Your task to perform on an android device: turn pop-ups off in chrome Image 0: 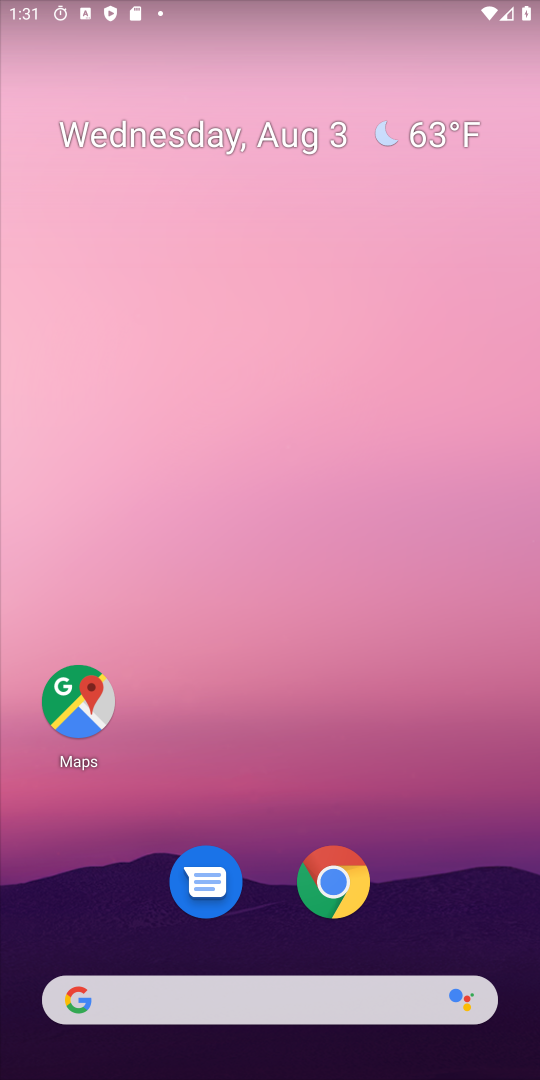
Step 0: click (452, 639)
Your task to perform on an android device: turn pop-ups off in chrome Image 1: 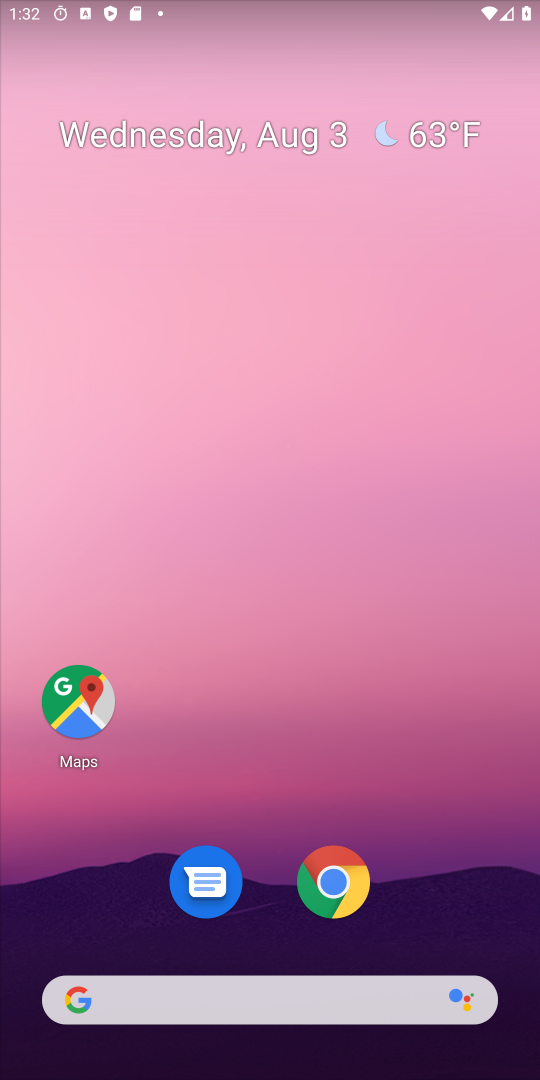
Step 1: drag from (282, 806) to (261, 32)
Your task to perform on an android device: turn pop-ups off in chrome Image 2: 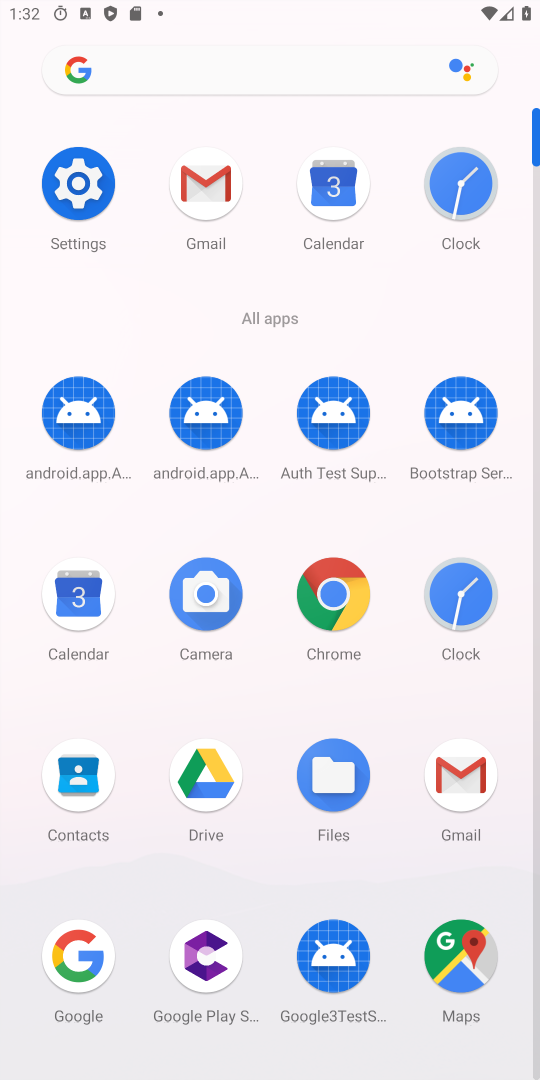
Step 2: click (345, 606)
Your task to perform on an android device: turn pop-ups off in chrome Image 3: 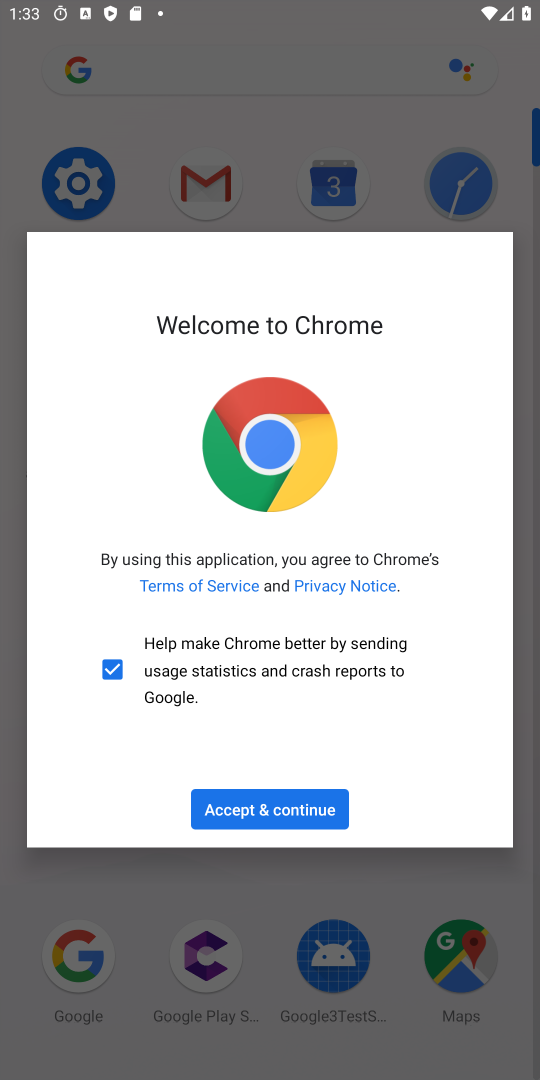
Step 3: click (271, 784)
Your task to perform on an android device: turn pop-ups off in chrome Image 4: 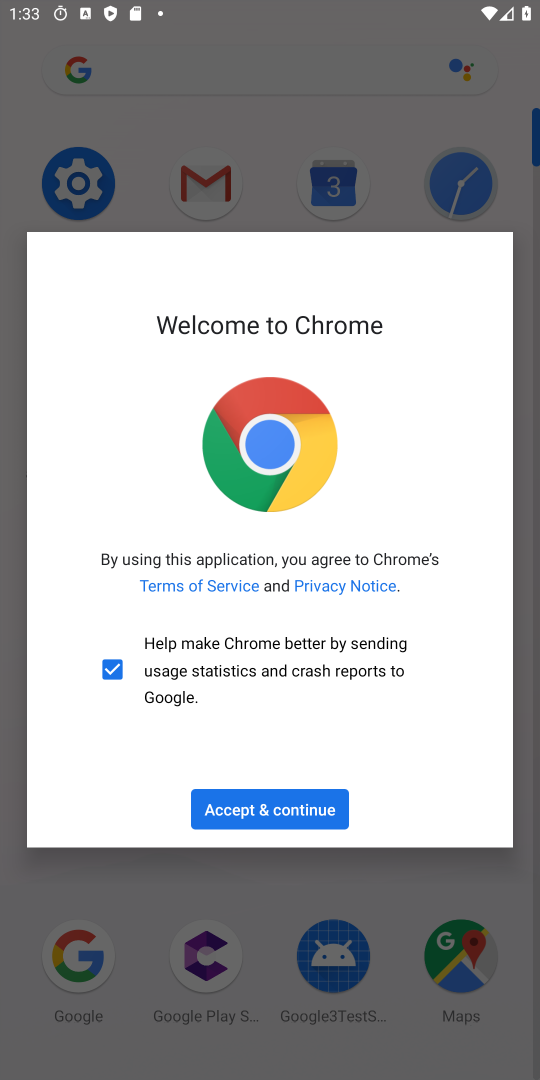
Step 4: click (264, 802)
Your task to perform on an android device: turn pop-ups off in chrome Image 5: 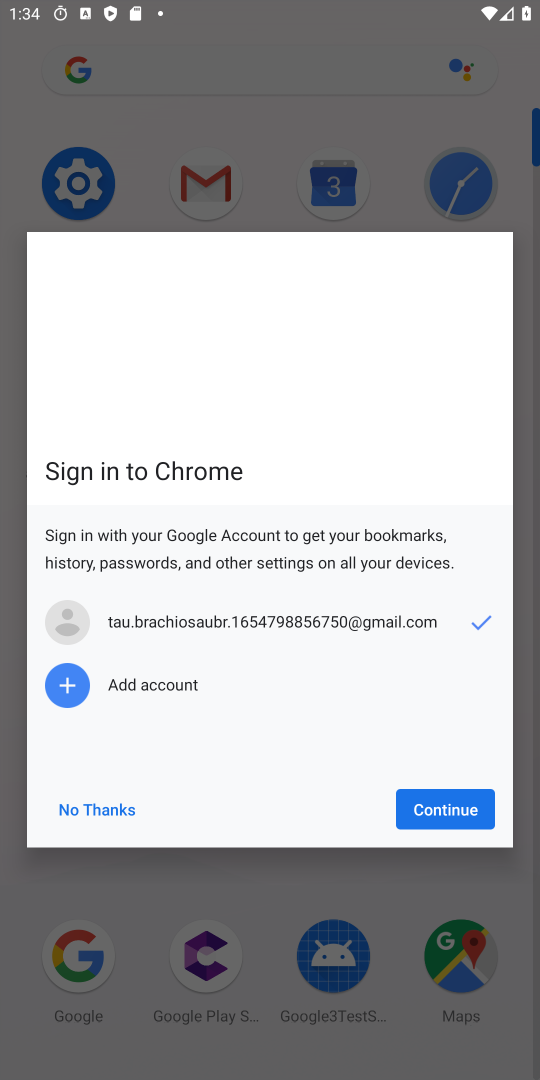
Step 5: click (474, 822)
Your task to perform on an android device: turn pop-ups off in chrome Image 6: 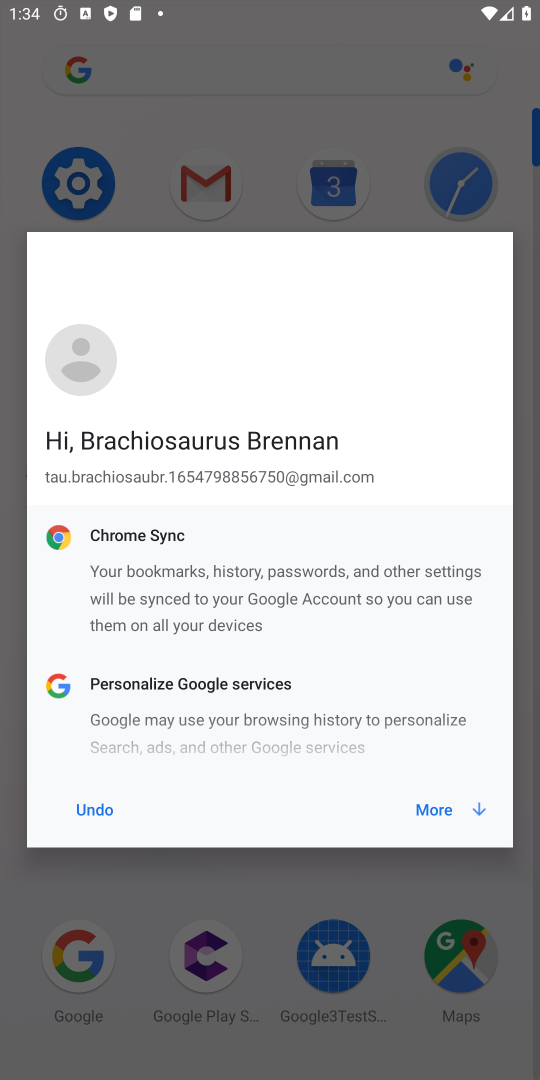
Step 6: click (445, 818)
Your task to perform on an android device: turn pop-ups off in chrome Image 7: 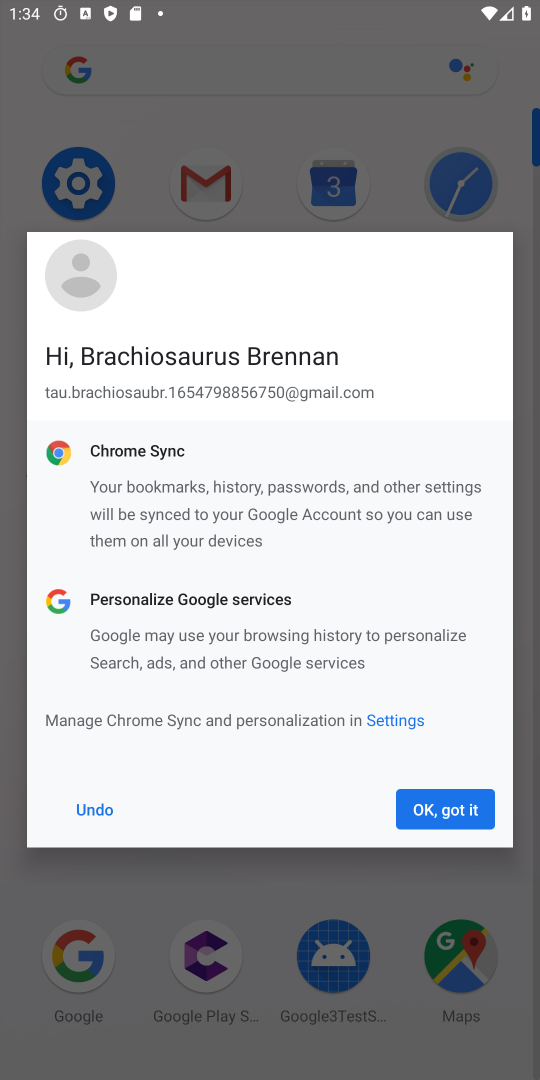
Step 7: click (449, 812)
Your task to perform on an android device: turn pop-ups off in chrome Image 8: 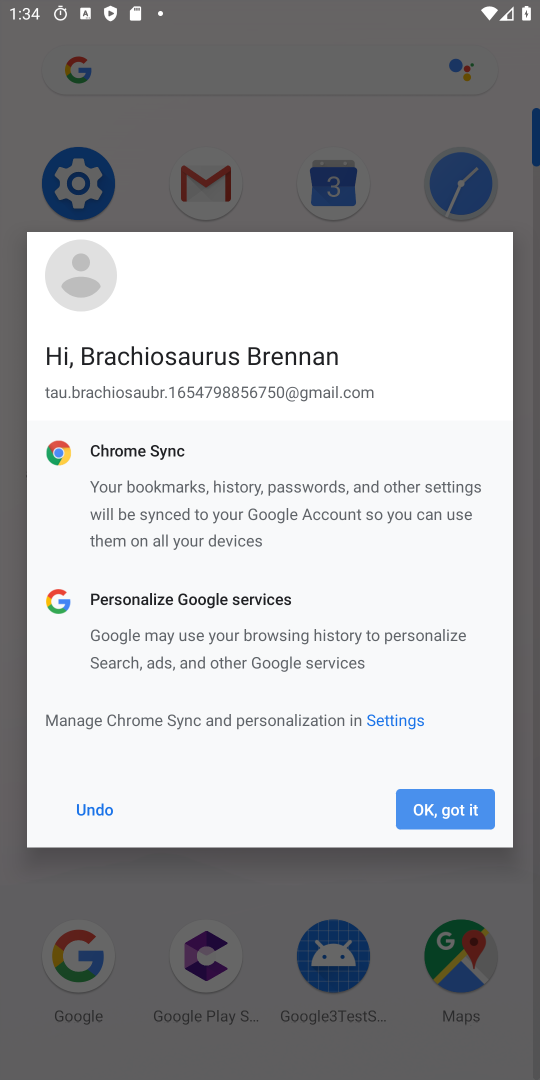
Step 8: click (457, 807)
Your task to perform on an android device: turn pop-ups off in chrome Image 9: 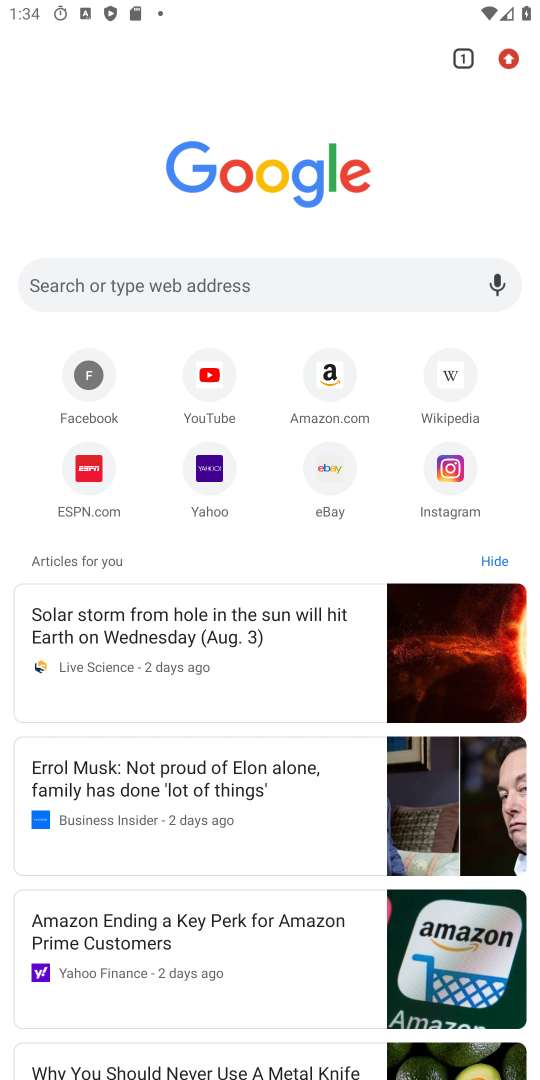
Step 9: click (509, 72)
Your task to perform on an android device: turn pop-ups off in chrome Image 10: 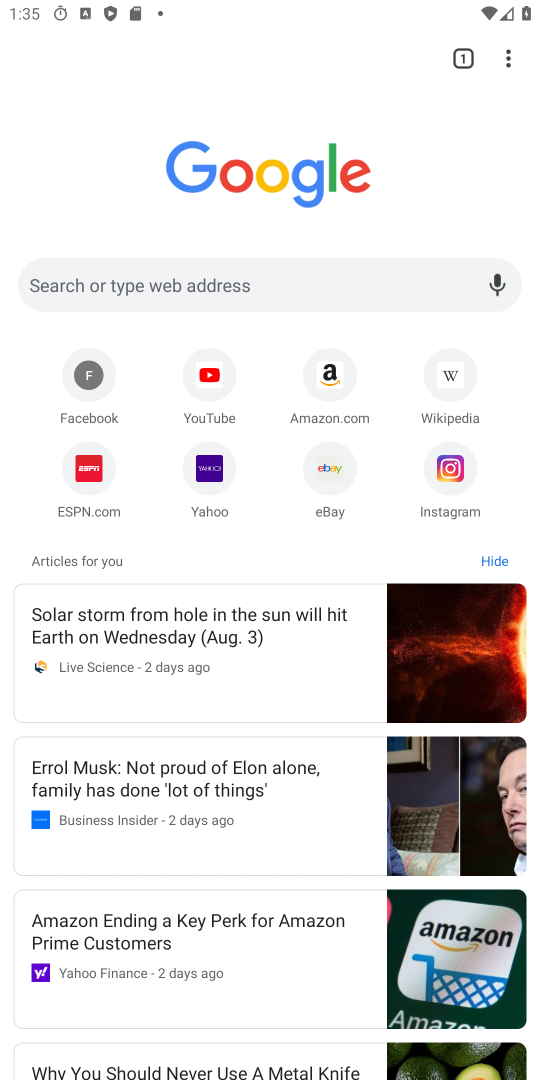
Step 10: click (518, 53)
Your task to perform on an android device: turn pop-ups off in chrome Image 11: 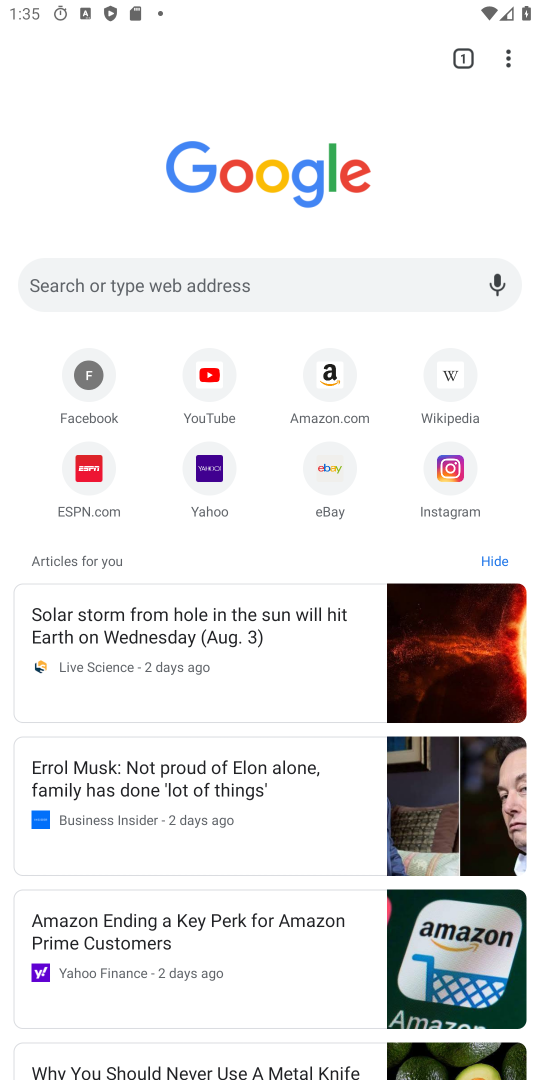
Step 11: click (509, 67)
Your task to perform on an android device: turn pop-ups off in chrome Image 12: 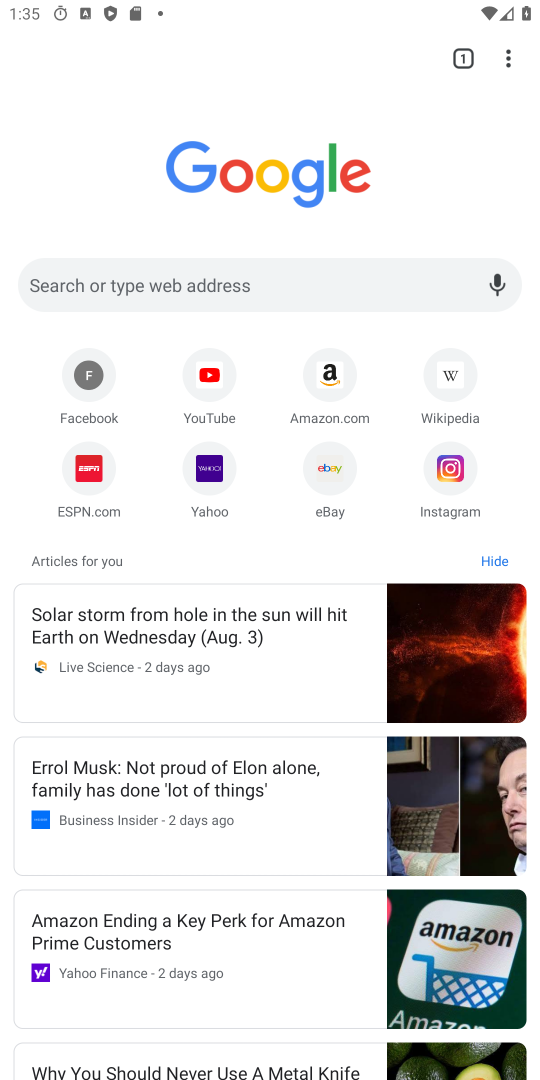
Step 12: click (494, 60)
Your task to perform on an android device: turn pop-ups off in chrome Image 13: 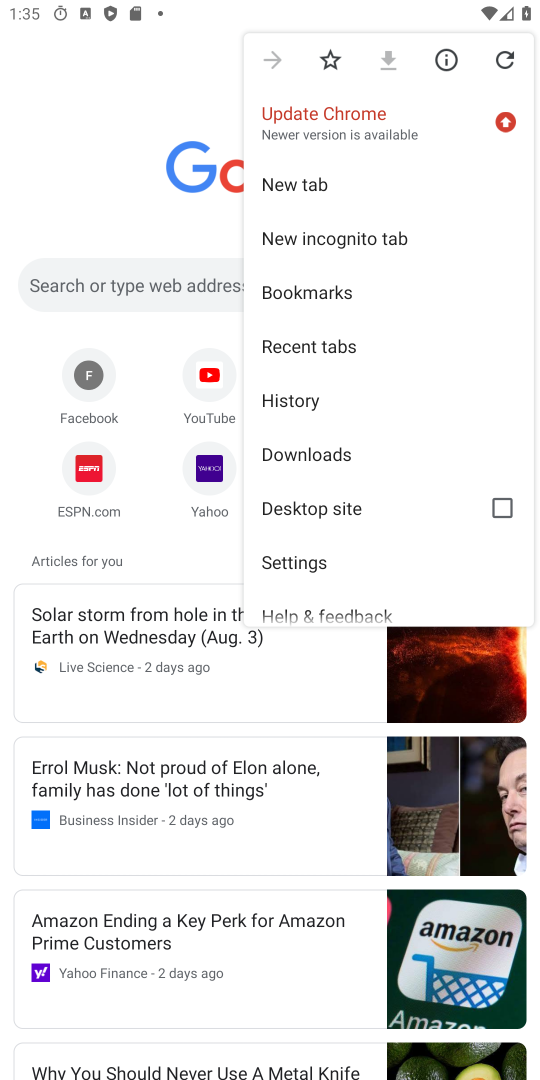
Step 13: click (332, 558)
Your task to perform on an android device: turn pop-ups off in chrome Image 14: 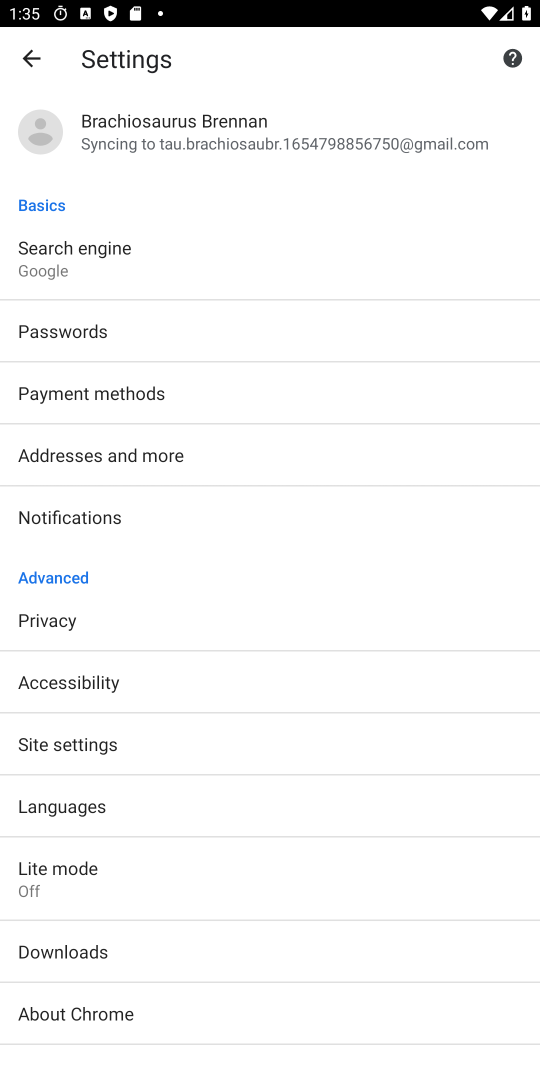
Step 14: click (189, 736)
Your task to perform on an android device: turn pop-ups off in chrome Image 15: 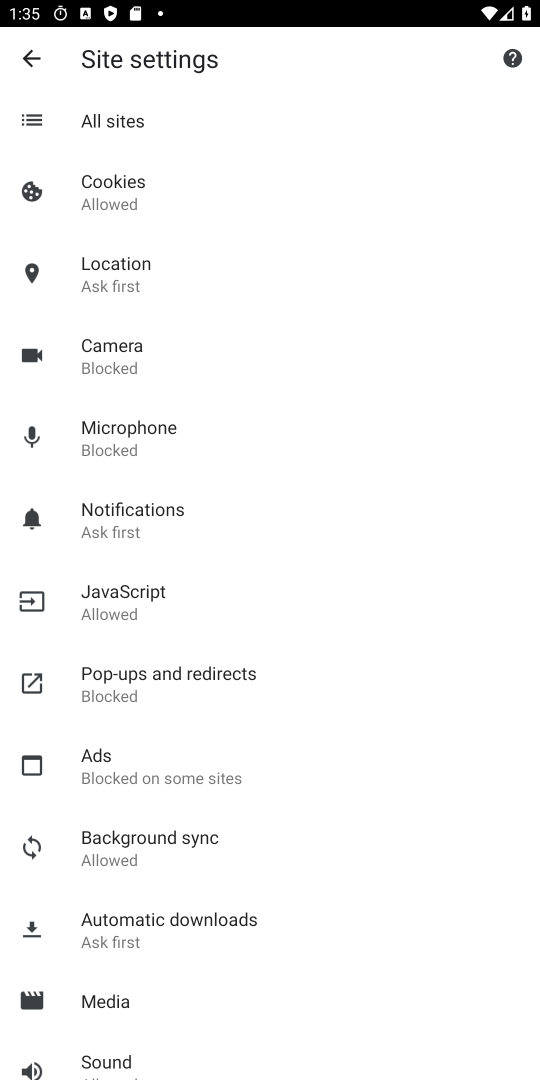
Step 15: click (124, 693)
Your task to perform on an android device: turn pop-ups off in chrome Image 16: 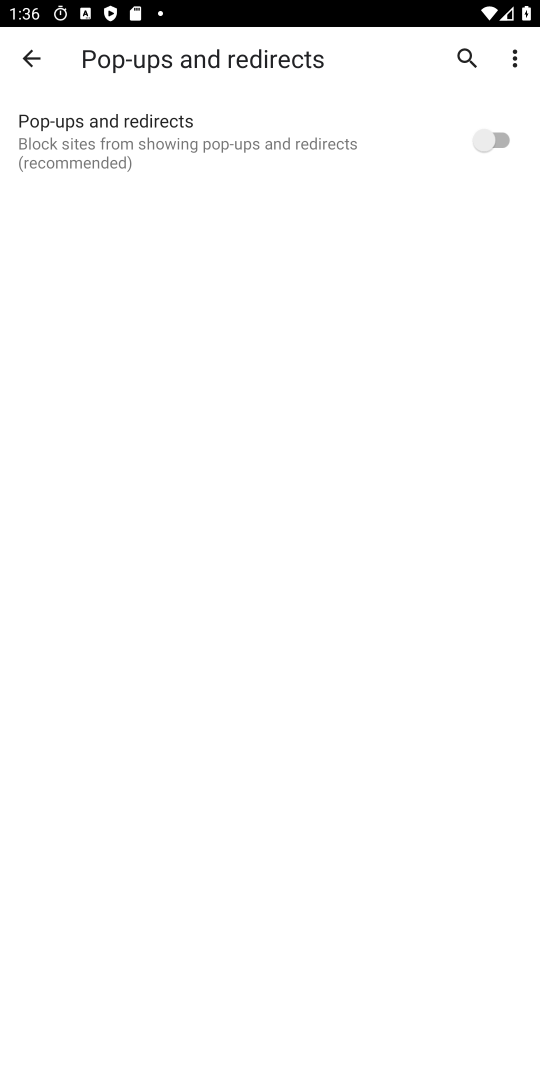
Step 16: task complete